Your task to perform on an android device: change the clock display to show seconds Image 0: 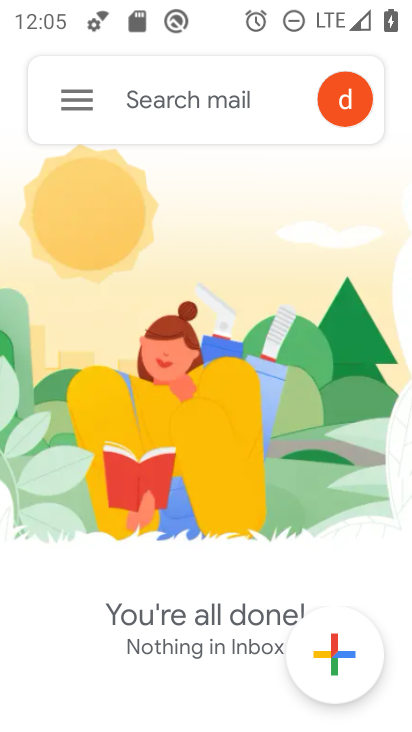
Step 0: press home button
Your task to perform on an android device: change the clock display to show seconds Image 1: 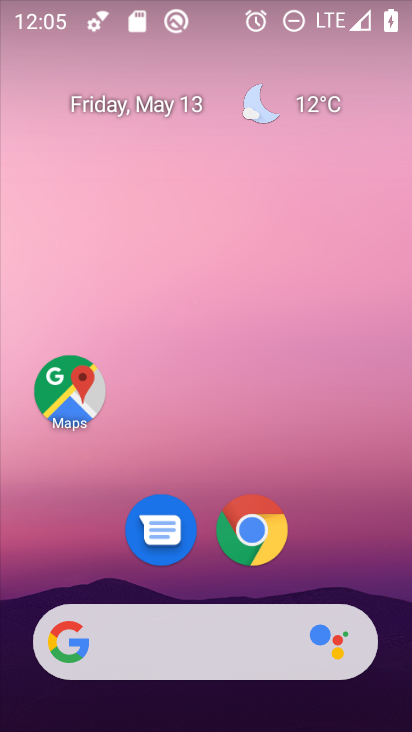
Step 1: drag from (167, 643) to (216, 277)
Your task to perform on an android device: change the clock display to show seconds Image 2: 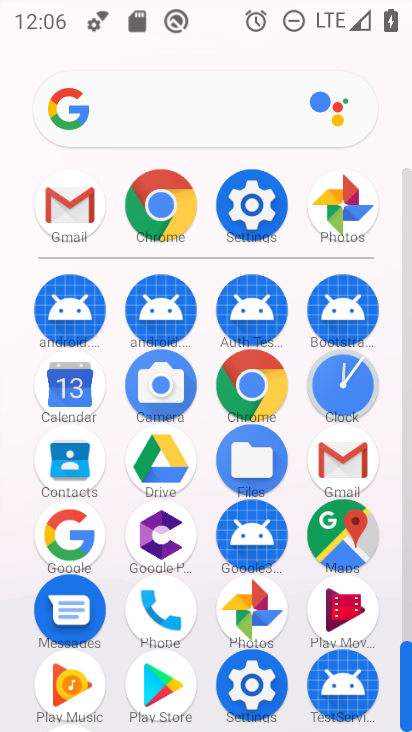
Step 2: click (348, 395)
Your task to perform on an android device: change the clock display to show seconds Image 3: 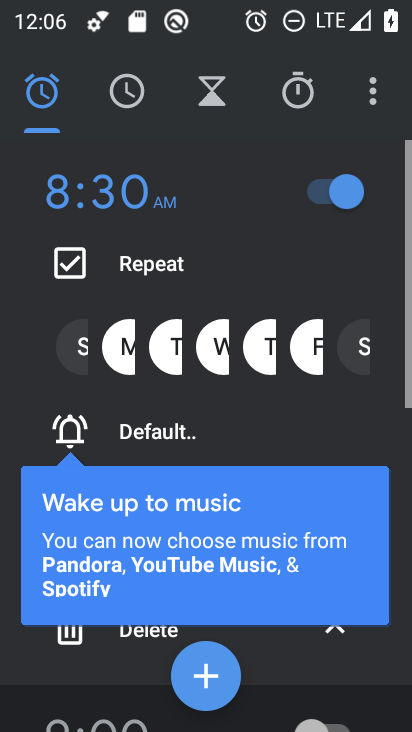
Step 3: click (377, 97)
Your task to perform on an android device: change the clock display to show seconds Image 4: 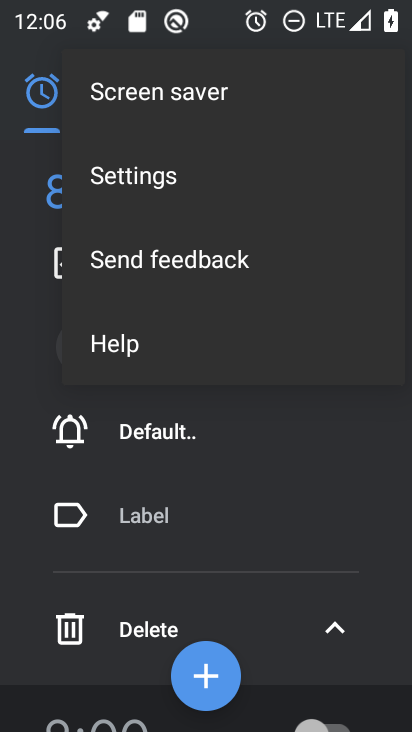
Step 4: click (178, 176)
Your task to perform on an android device: change the clock display to show seconds Image 5: 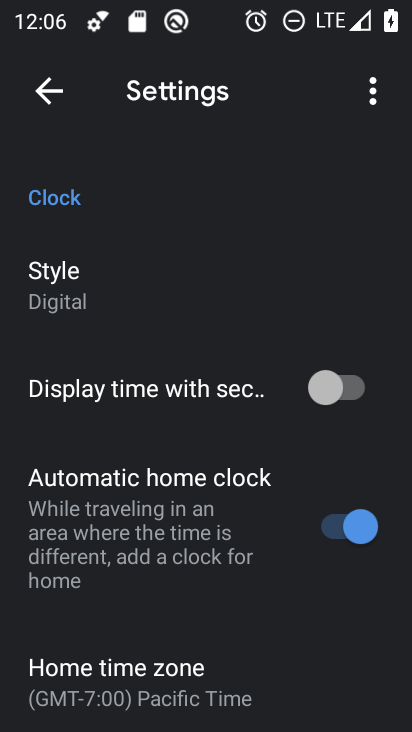
Step 5: click (341, 389)
Your task to perform on an android device: change the clock display to show seconds Image 6: 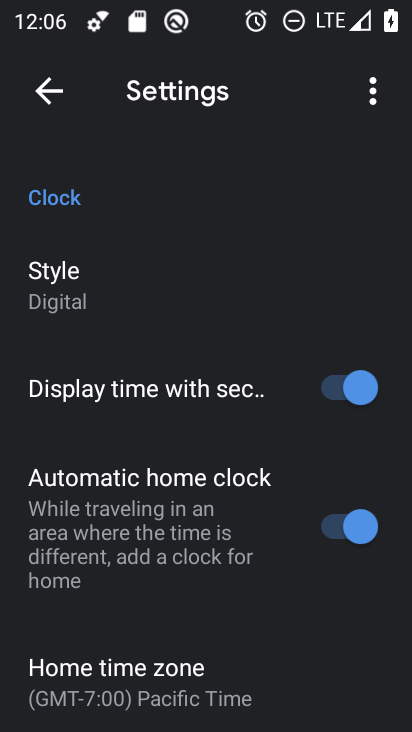
Step 6: task complete